Your task to perform on an android device: Add "bose quietcomfort 35" to the cart on costco.com Image 0: 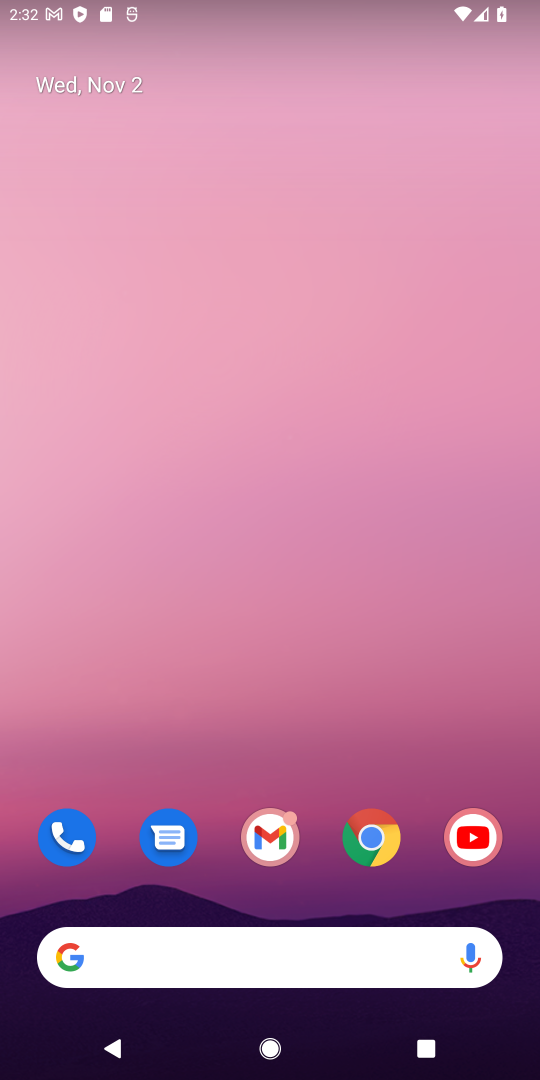
Step 0: press home button
Your task to perform on an android device: Add "bose quietcomfort 35" to the cart on costco.com Image 1: 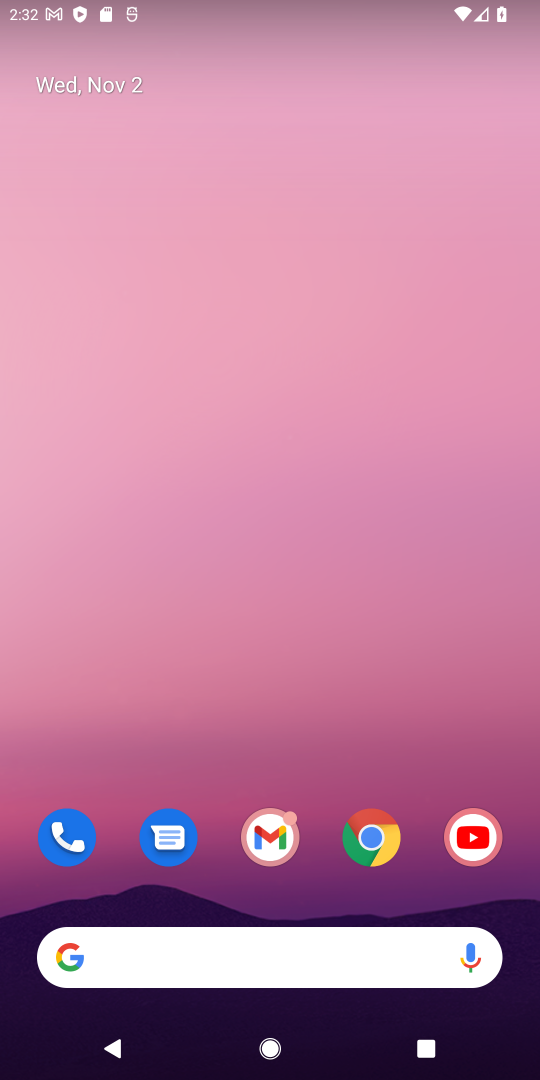
Step 1: drag from (317, 792) to (391, 46)
Your task to perform on an android device: Add "bose quietcomfort 35" to the cart on costco.com Image 2: 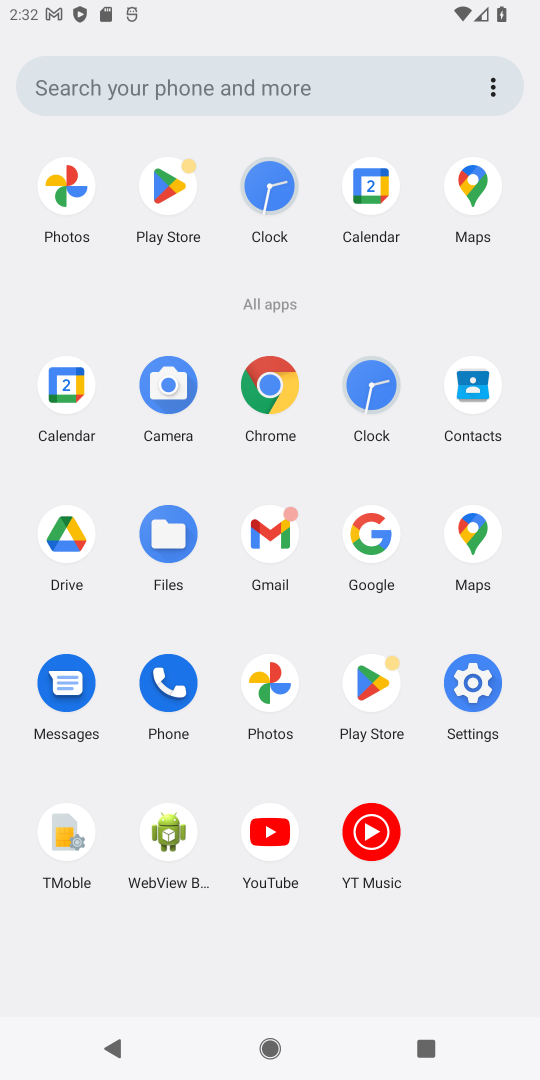
Step 2: click (269, 376)
Your task to perform on an android device: Add "bose quietcomfort 35" to the cart on costco.com Image 3: 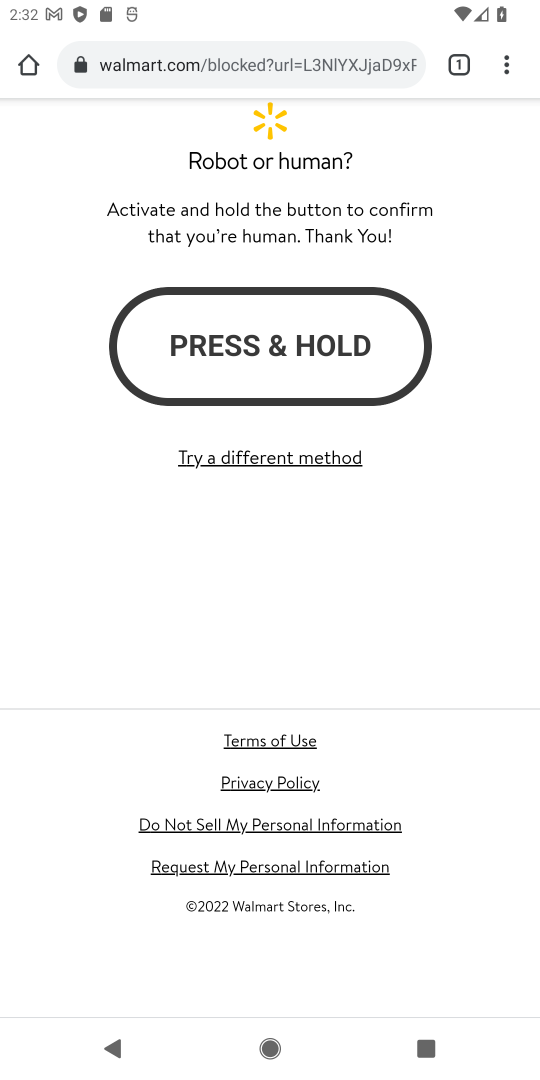
Step 3: click (214, 59)
Your task to perform on an android device: Add "bose quietcomfort 35" to the cart on costco.com Image 4: 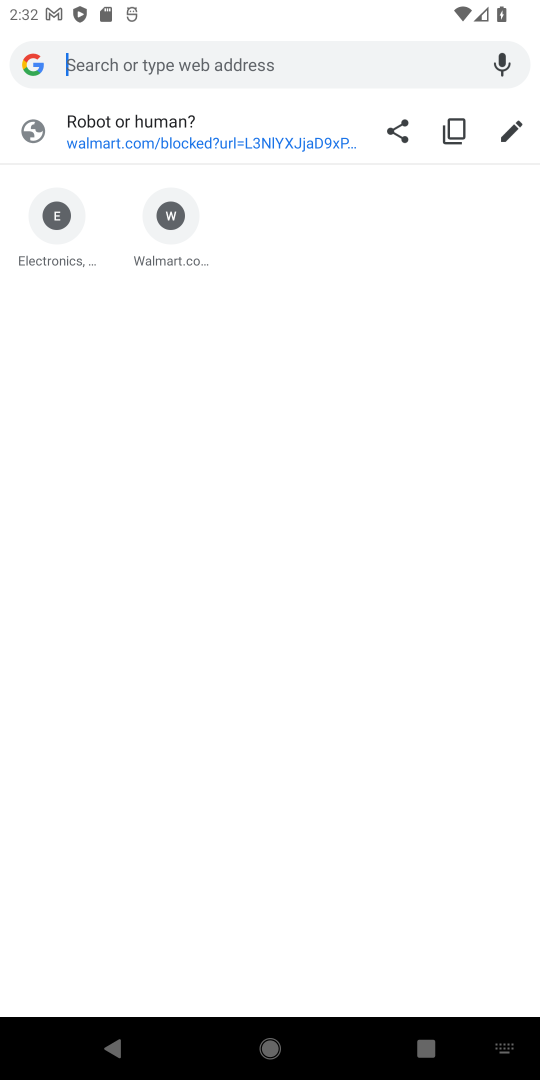
Step 4: type "costco.com"
Your task to perform on an android device: Add "bose quietcomfort 35" to the cart on costco.com Image 5: 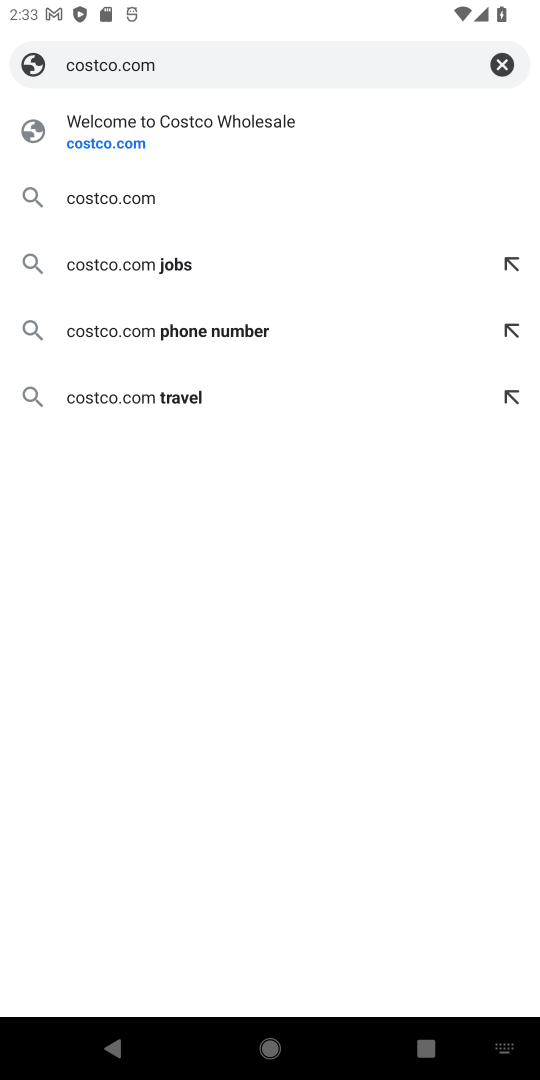
Step 5: click (124, 146)
Your task to perform on an android device: Add "bose quietcomfort 35" to the cart on costco.com Image 6: 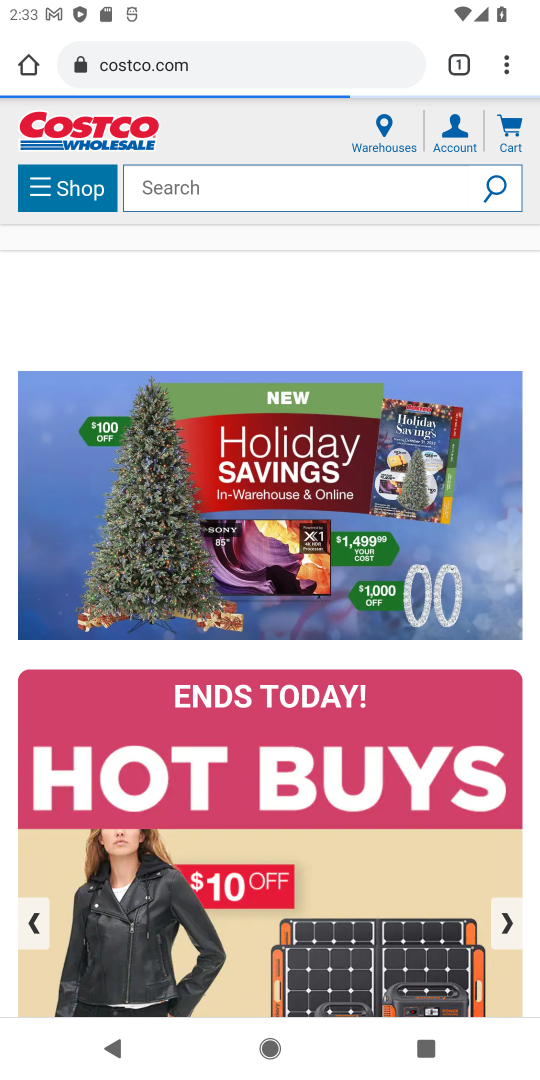
Step 6: click (221, 177)
Your task to perform on an android device: Add "bose quietcomfort 35" to the cart on costco.com Image 7: 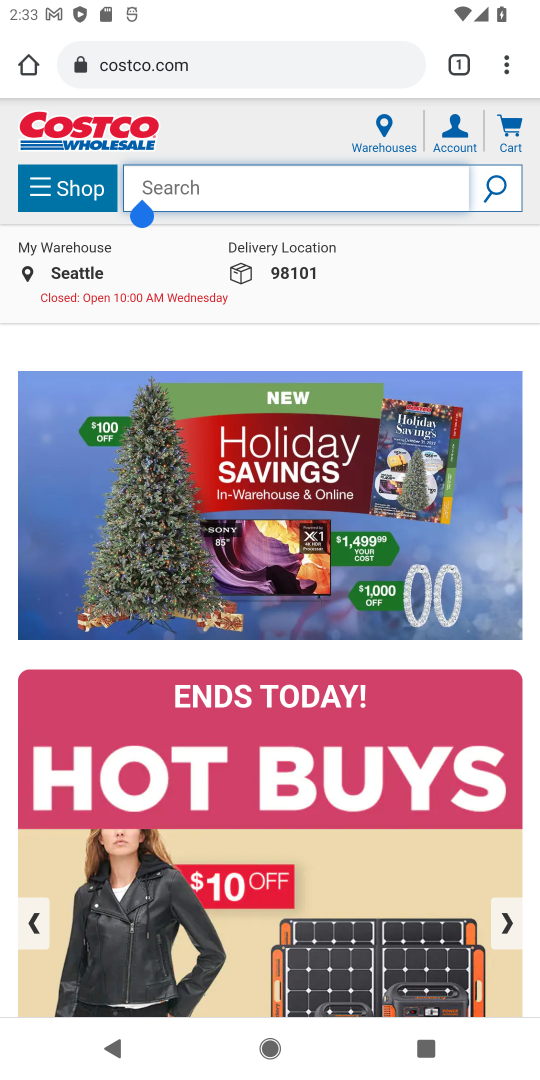
Step 7: type "bose quietcomfort 35"
Your task to perform on an android device: Add "bose quietcomfort 35" to the cart on costco.com Image 8: 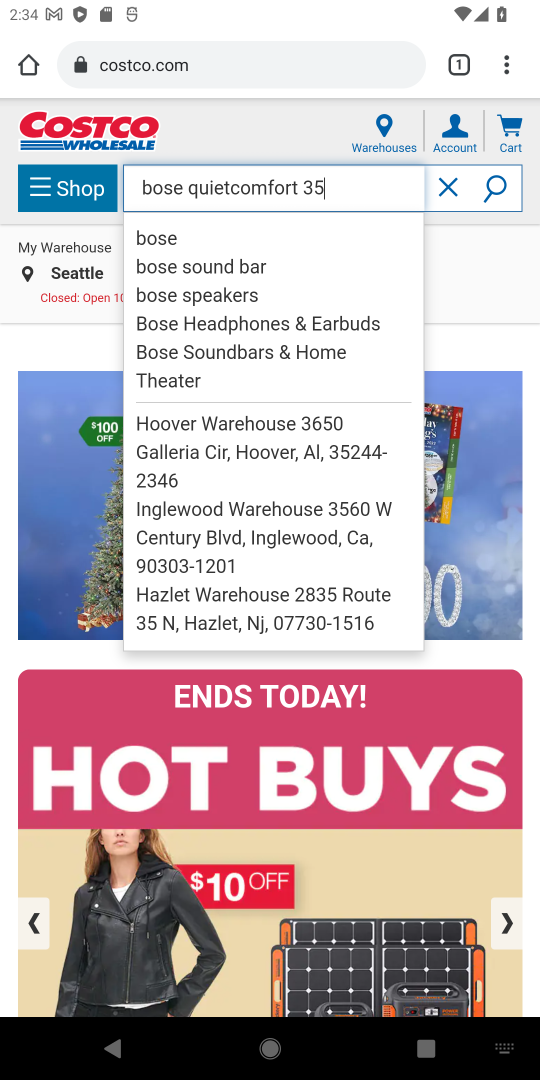
Step 8: click (276, 457)
Your task to perform on an android device: Add "bose quietcomfort 35" to the cart on costco.com Image 9: 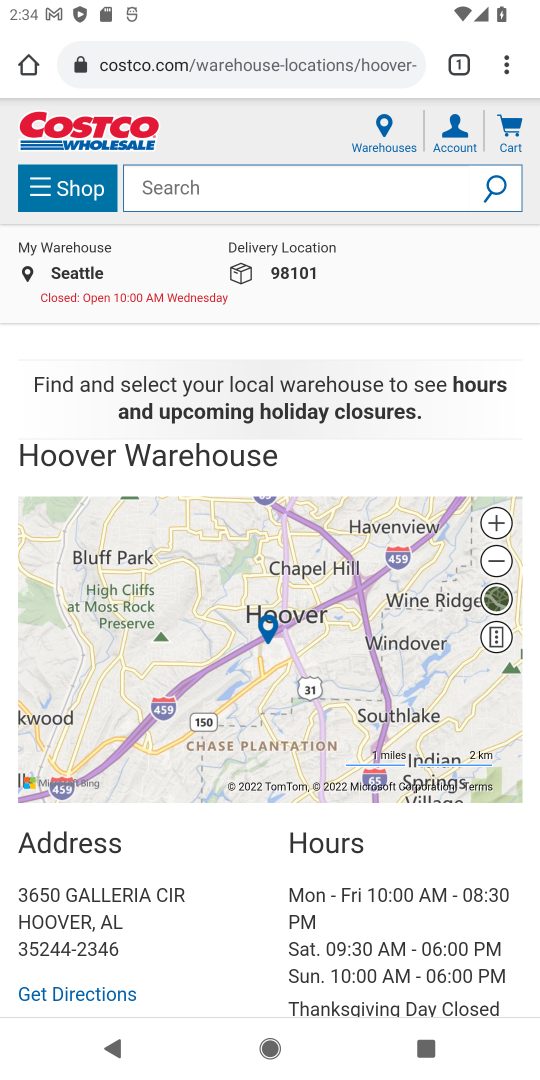
Step 9: task complete